Your task to perform on an android device: Find coffee shops on Maps Image 0: 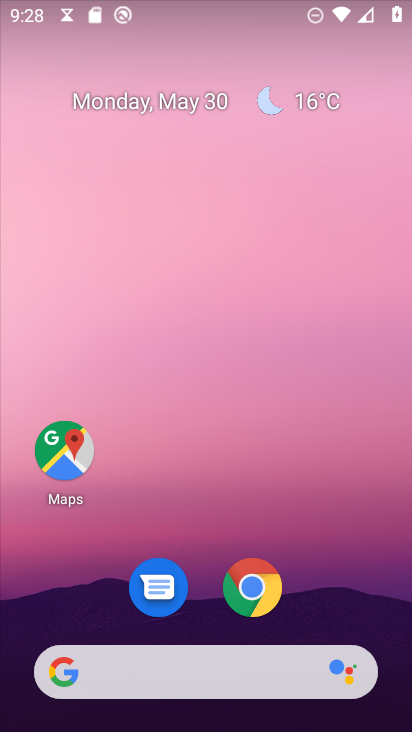
Step 0: click (64, 469)
Your task to perform on an android device: Find coffee shops on Maps Image 1: 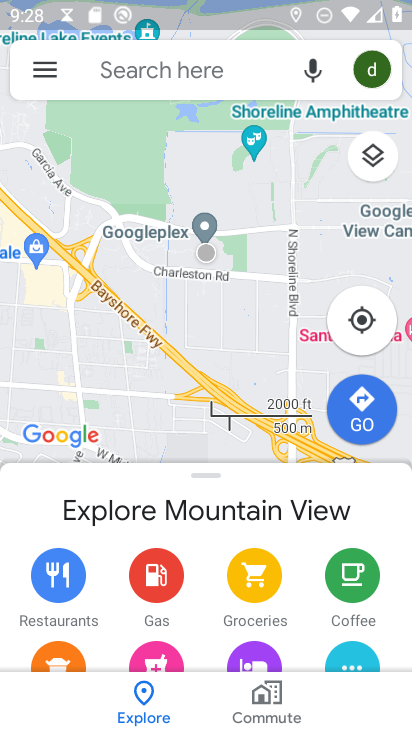
Step 1: click (186, 69)
Your task to perform on an android device: Find coffee shops on Maps Image 2: 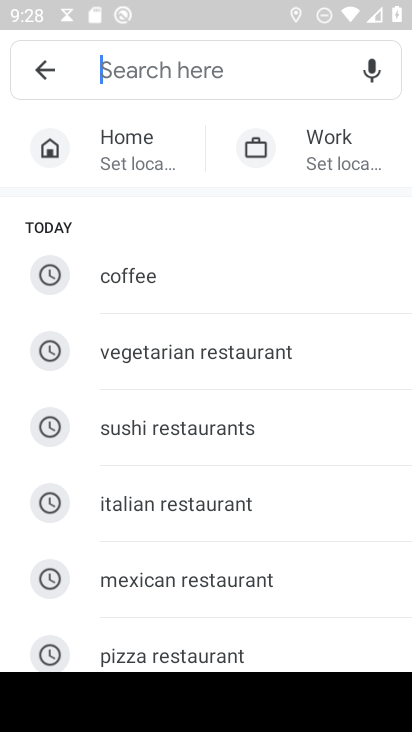
Step 2: click (146, 272)
Your task to perform on an android device: Find coffee shops on Maps Image 3: 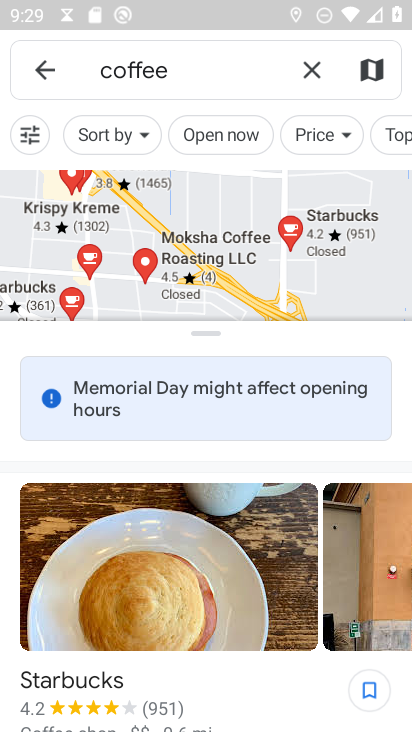
Step 3: task complete